Your task to perform on an android device: change notifications settings Image 0: 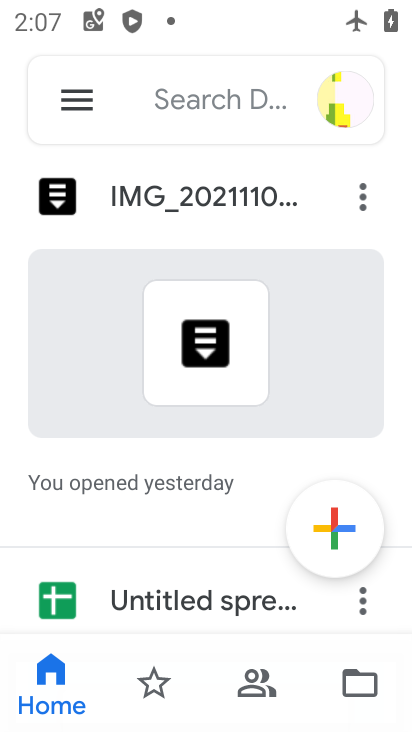
Step 0: press home button
Your task to perform on an android device: change notifications settings Image 1: 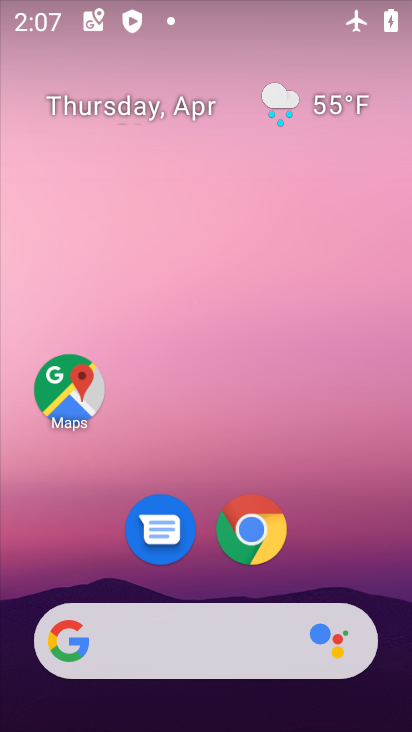
Step 1: drag from (239, 593) to (207, 314)
Your task to perform on an android device: change notifications settings Image 2: 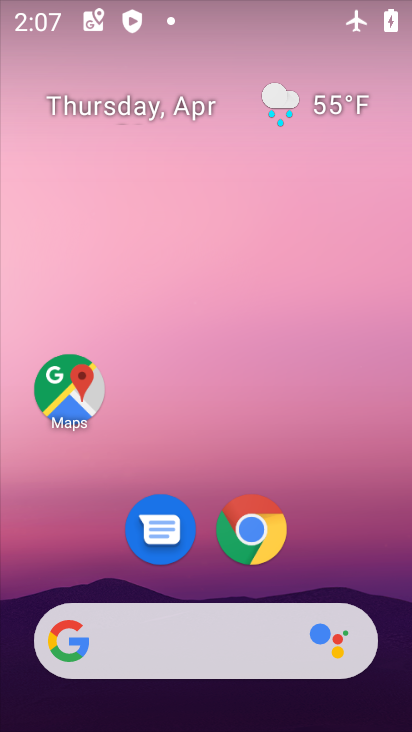
Step 2: drag from (231, 570) to (211, 241)
Your task to perform on an android device: change notifications settings Image 3: 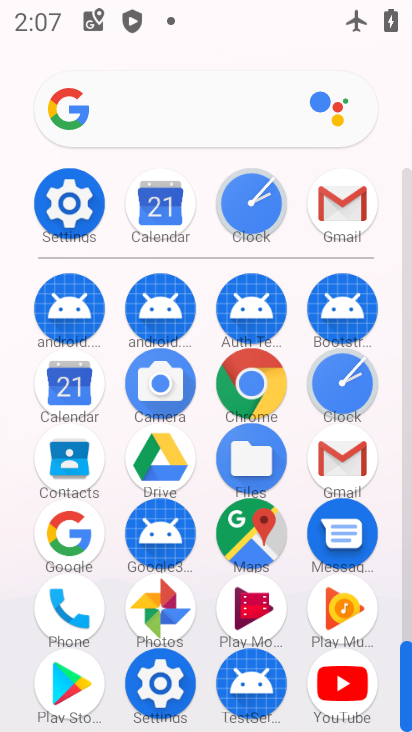
Step 3: click (69, 223)
Your task to perform on an android device: change notifications settings Image 4: 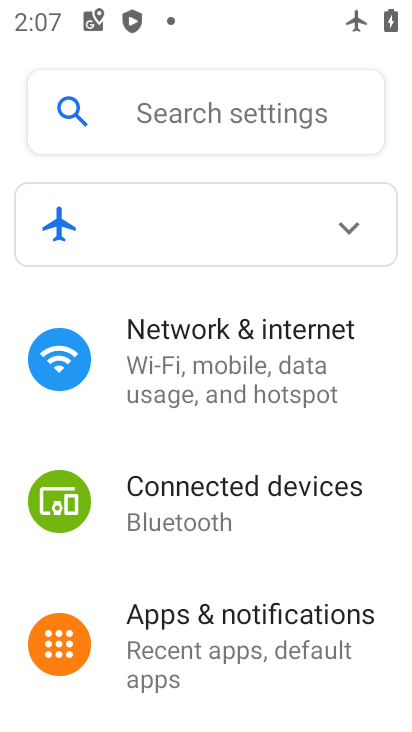
Step 4: drag from (234, 538) to (215, 293)
Your task to perform on an android device: change notifications settings Image 5: 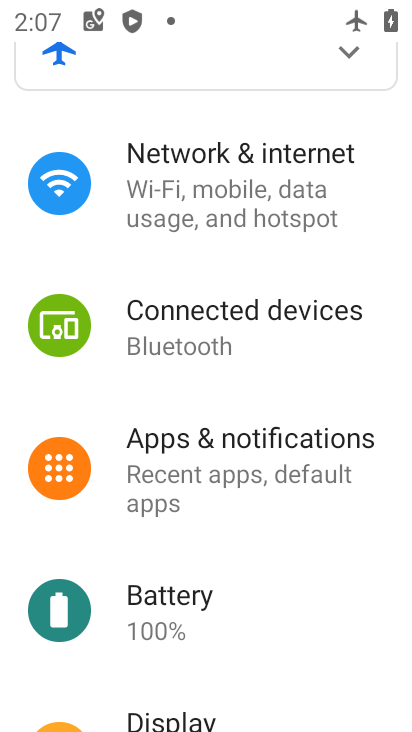
Step 5: click (234, 468)
Your task to perform on an android device: change notifications settings Image 6: 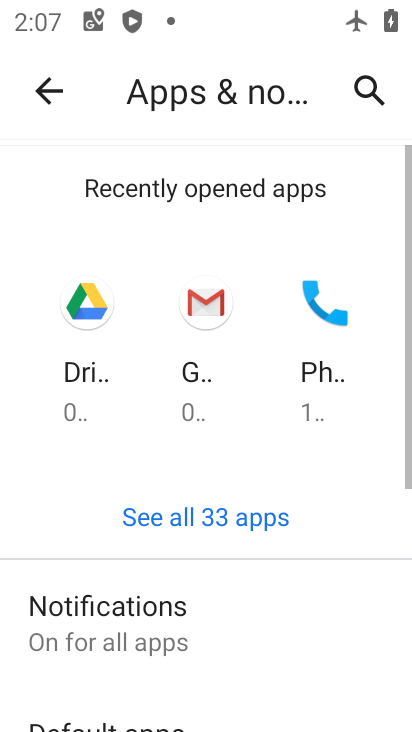
Step 6: drag from (252, 616) to (219, 358)
Your task to perform on an android device: change notifications settings Image 7: 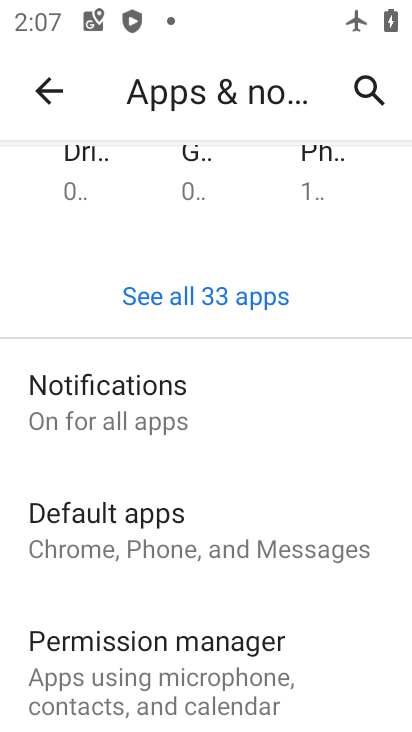
Step 7: click (165, 415)
Your task to perform on an android device: change notifications settings Image 8: 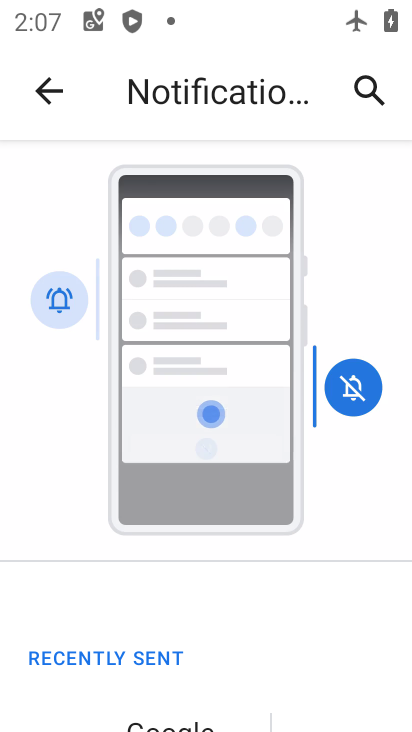
Step 8: drag from (238, 550) to (245, 305)
Your task to perform on an android device: change notifications settings Image 9: 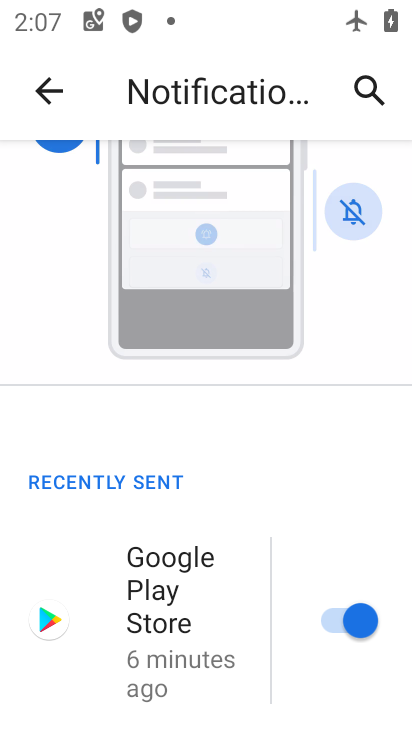
Step 9: drag from (239, 424) to (225, 241)
Your task to perform on an android device: change notifications settings Image 10: 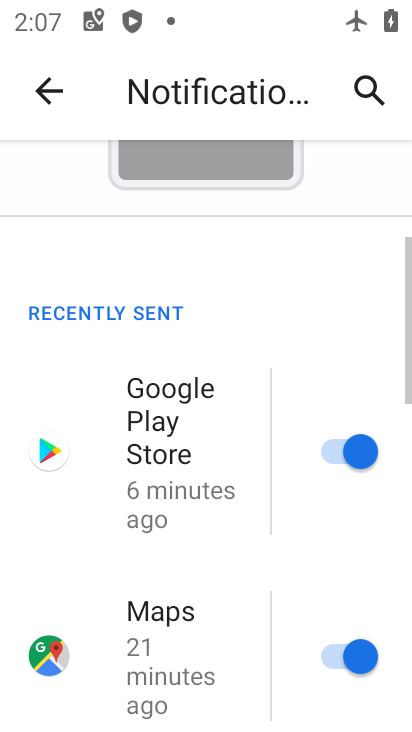
Step 10: drag from (252, 594) to (257, 231)
Your task to perform on an android device: change notifications settings Image 11: 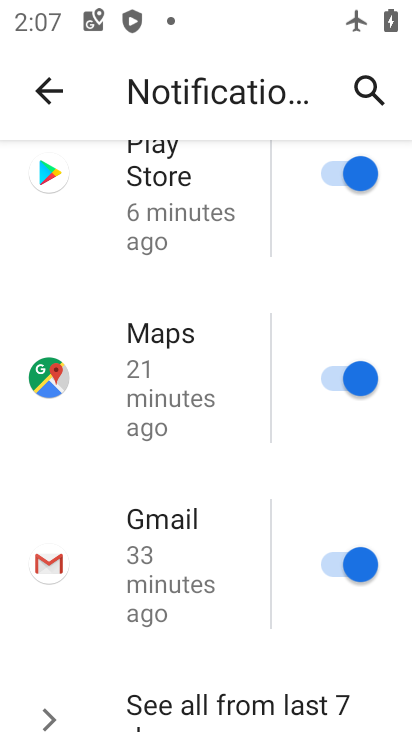
Step 11: drag from (265, 529) to (223, 222)
Your task to perform on an android device: change notifications settings Image 12: 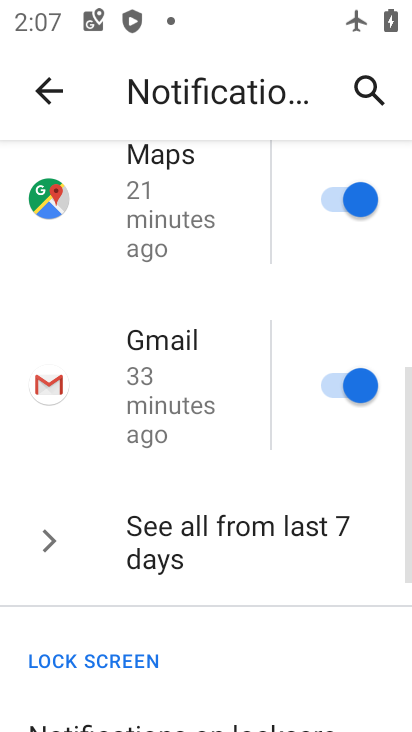
Step 12: drag from (249, 558) to (218, 304)
Your task to perform on an android device: change notifications settings Image 13: 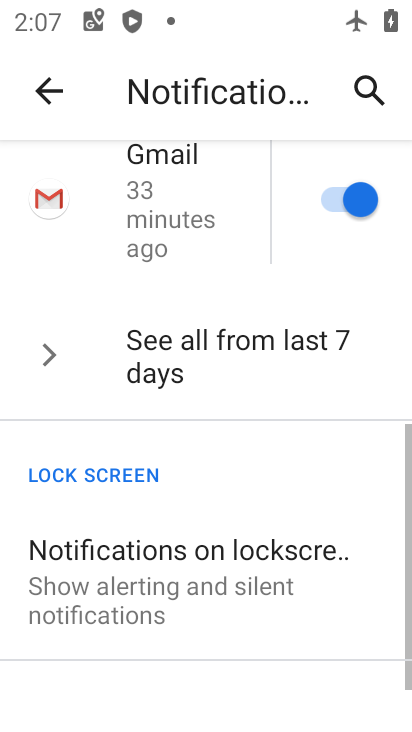
Step 13: click (339, 170)
Your task to perform on an android device: change notifications settings Image 14: 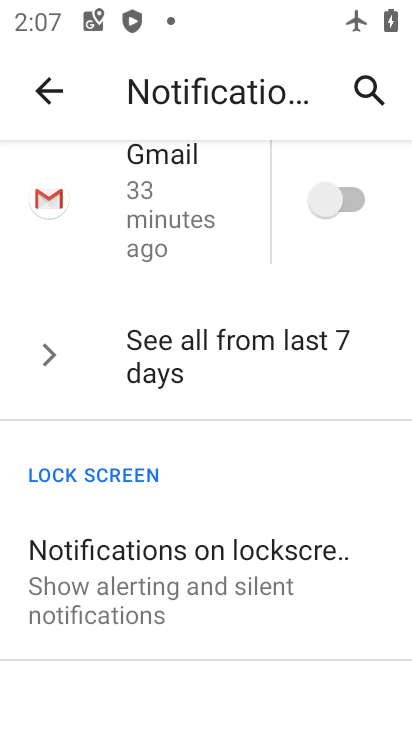
Step 14: task complete